Your task to perform on an android device: Open Wikipedia Image 0: 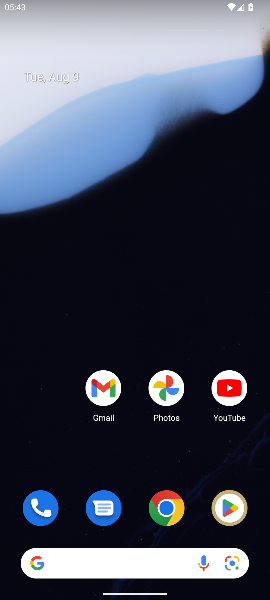
Step 0: click (161, 505)
Your task to perform on an android device: Open Wikipedia Image 1: 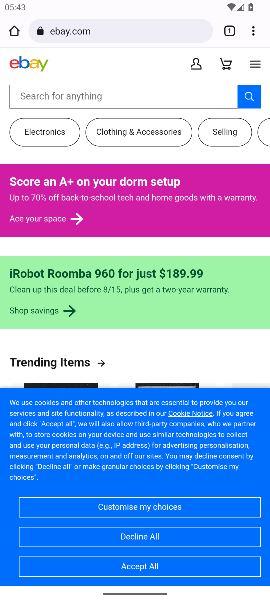
Step 1: click (136, 31)
Your task to perform on an android device: Open Wikipedia Image 2: 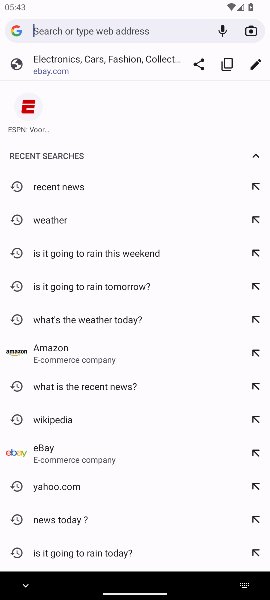
Step 2: type "wikipedia"
Your task to perform on an android device: Open Wikipedia Image 3: 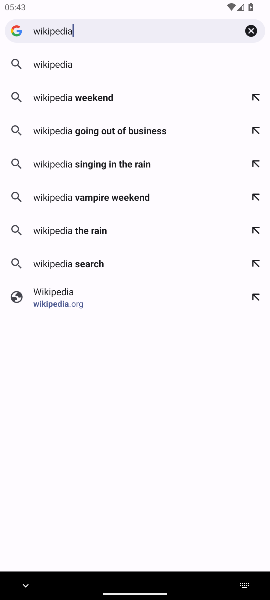
Step 3: click (67, 56)
Your task to perform on an android device: Open Wikipedia Image 4: 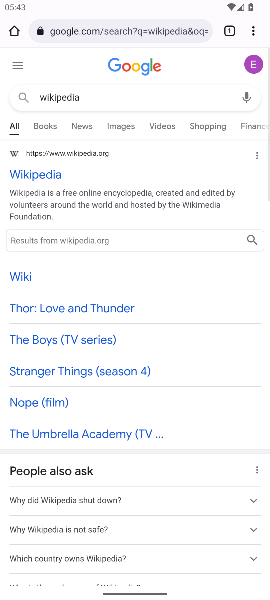
Step 4: click (35, 180)
Your task to perform on an android device: Open Wikipedia Image 5: 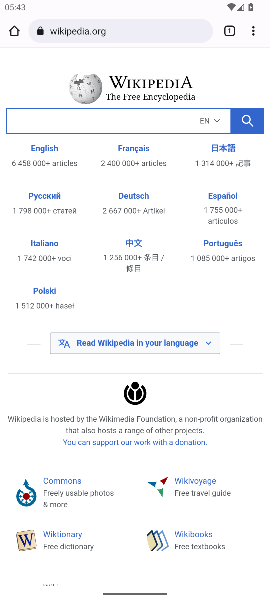
Step 5: task complete